Your task to perform on an android device: Play the latest video from the Wall Street Journal Image 0: 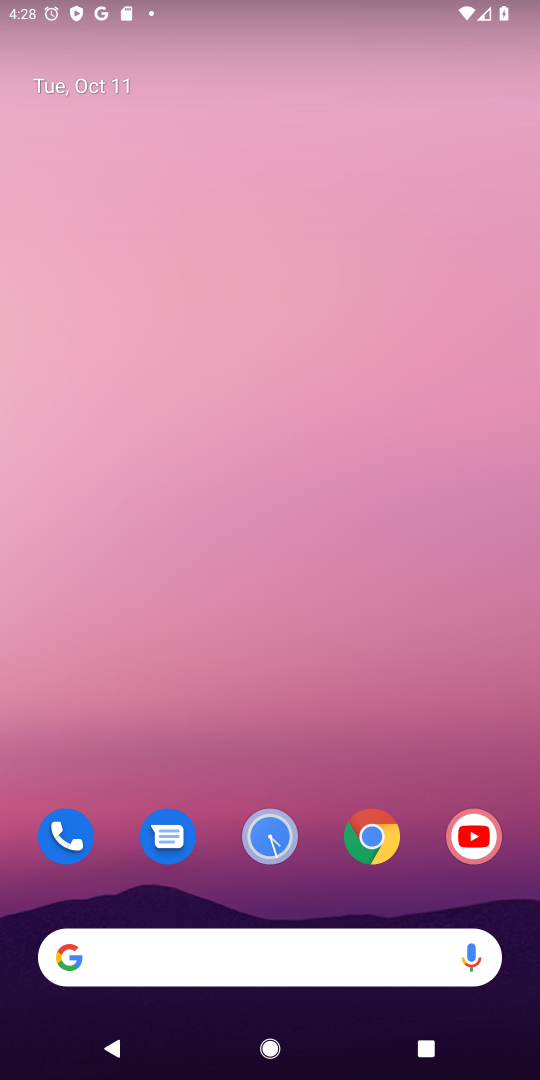
Step 0: click (249, 957)
Your task to perform on an android device: Play the latest video from the Wall Street Journal Image 1: 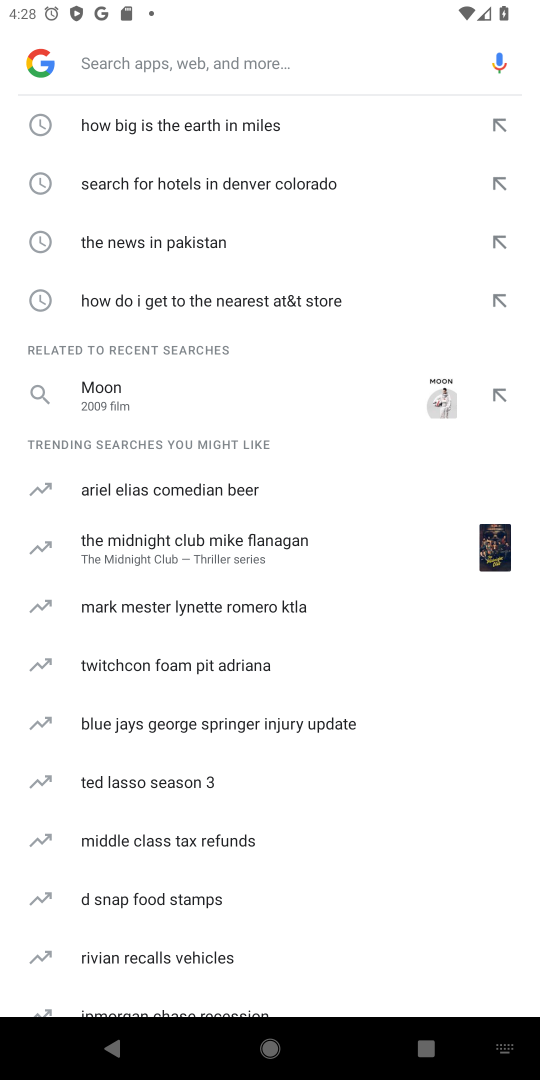
Step 1: type "Play the latest video from the Wall Street Journal"
Your task to perform on an android device: Play the latest video from the Wall Street Journal Image 2: 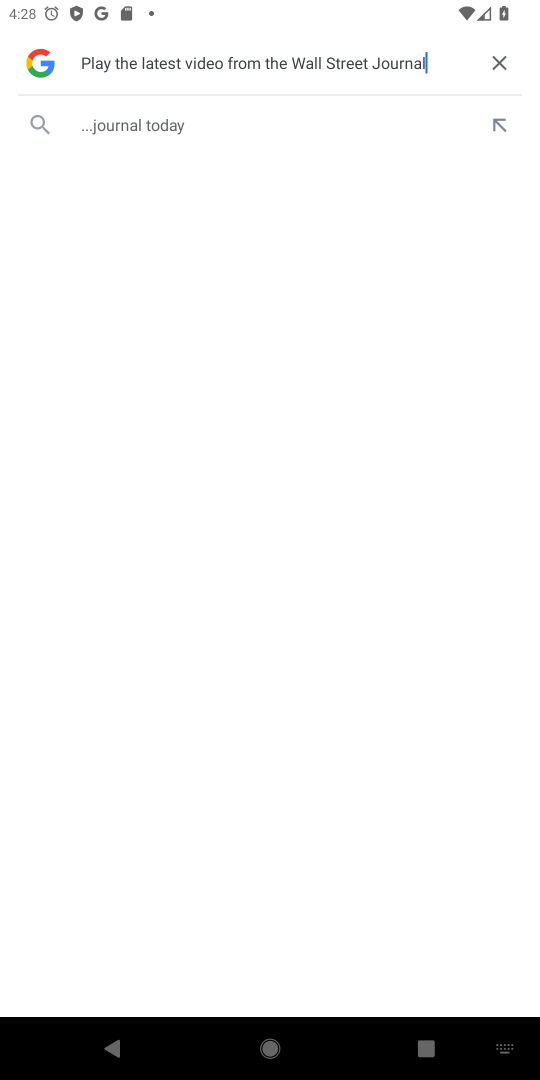
Step 2: task complete